Your task to perform on an android device: Turn off the flashlight Image 0: 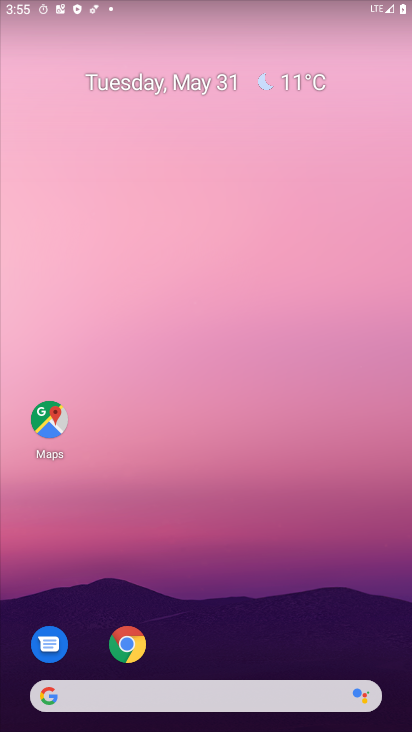
Step 0: drag from (230, 624) to (234, 106)
Your task to perform on an android device: Turn off the flashlight Image 1: 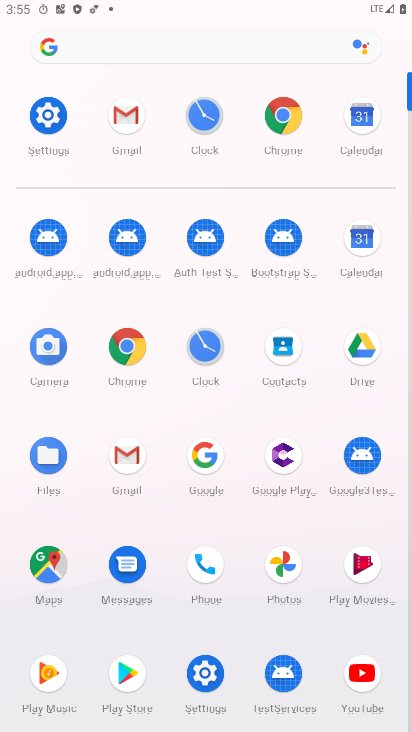
Step 1: click (56, 115)
Your task to perform on an android device: Turn off the flashlight Image 2: 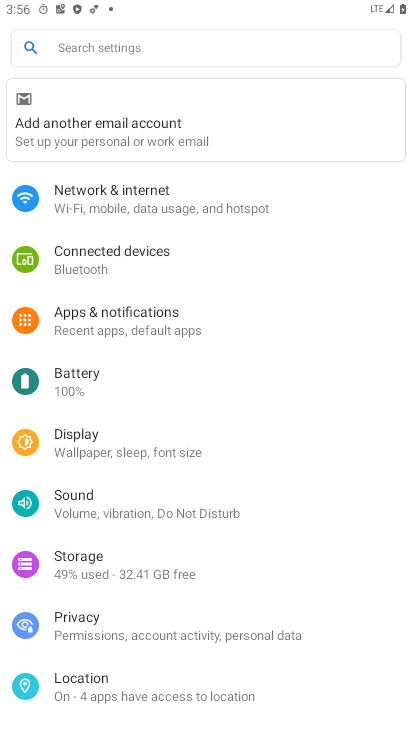
Step 2: drag from (282, 600) to (272, 389)
Your task to perform on an android device: Turn off the flashlight Image 3: 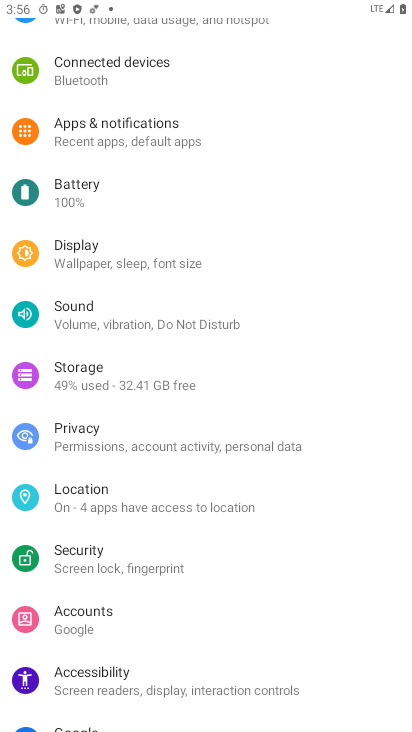
Step 3: click (125, 119)
Your task to perform on an android device: Turn off the flashlight Image 4: 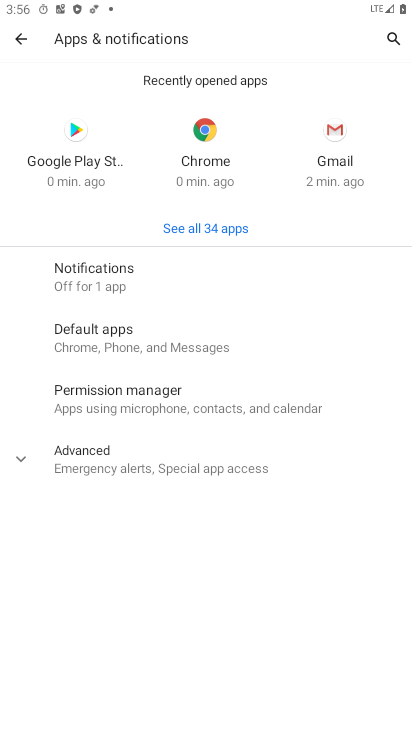
Step 4: click (125, 459)
Your task to perform on an android device: Turn off the flashlight Image 5: 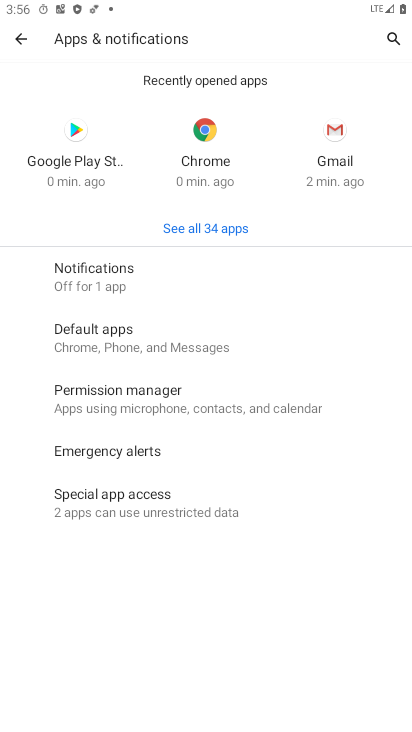
Step 5: click (124, 505)
Your task to perform on an android device: Turn off the flashlight Image 6: 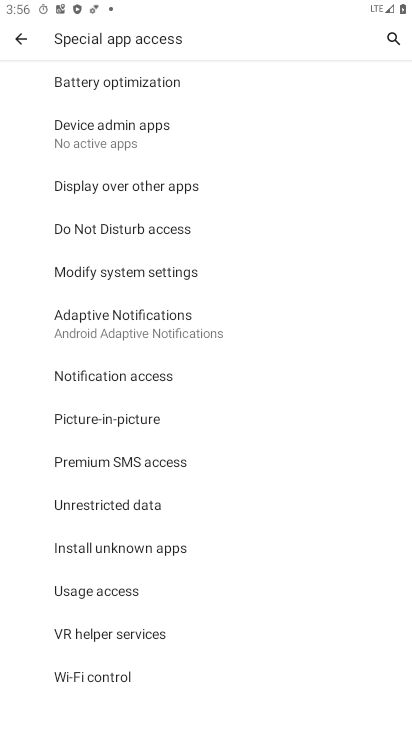
Step 6: task complete